Your task to perform on an android device: What's on my calendar today? Image 0: 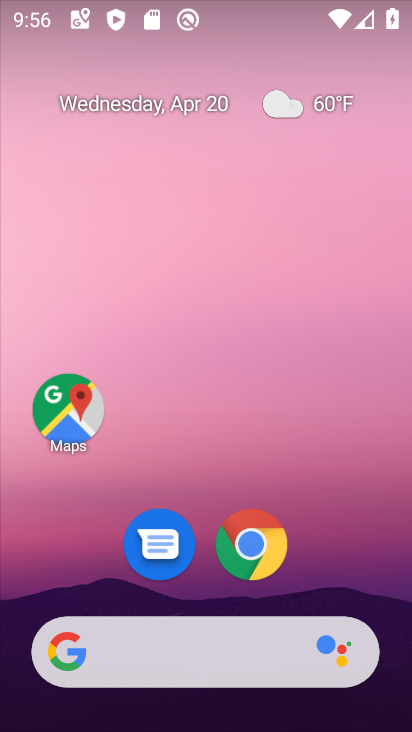
Step 0: drag from (224, 704) to (237, 135)
Your task to perform on an android device: What's on my calendar today? Image 1: 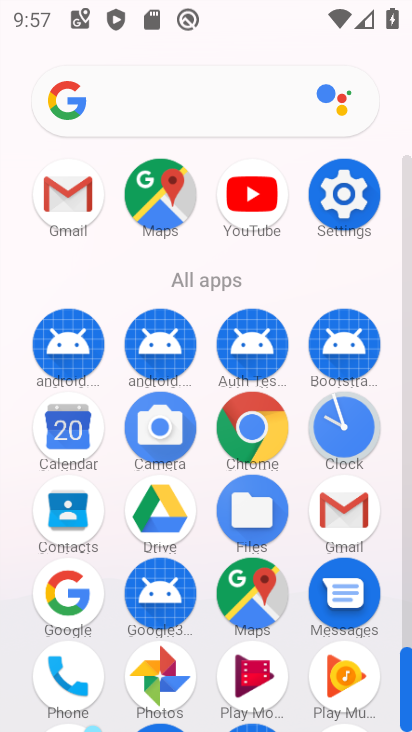
Step 1: click (61, 430)
Your task to perform on an android device: What's on my calendar today? Image 2: 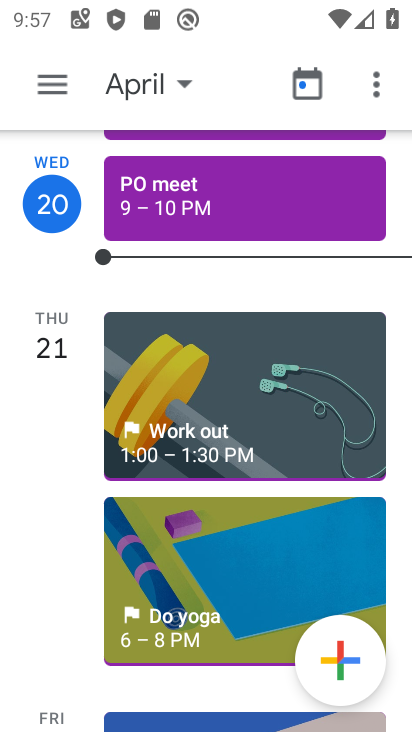
Step 2: click (134, 79)
Your task to perform on an android device: What's on my calendar today? Image 3: 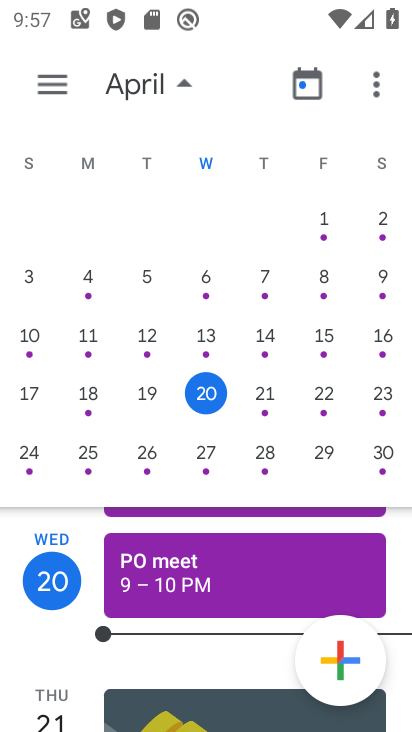
Step 3: click (203, 389)
Your task to perform on an android device: What's on my calendar today? Image 4: 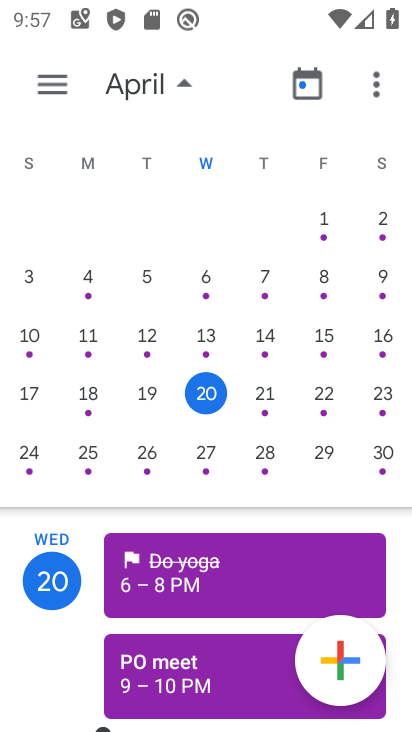
Step 4: task complete